Your task to perform on an android device: Open Chrome and go to settings Image 0: 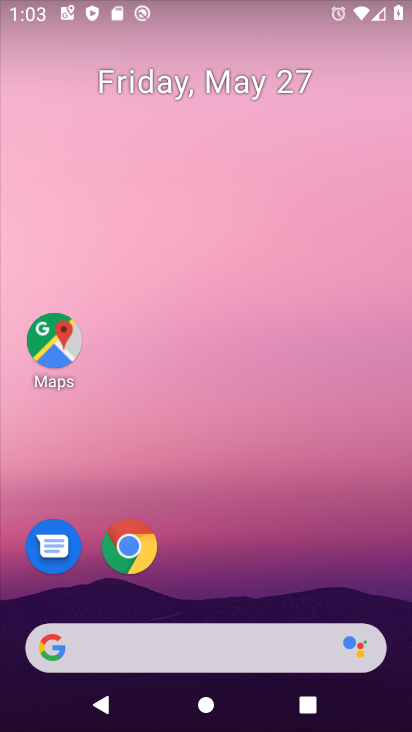
Step 0: drag from (272, 654) to (262, 29)
Your task to perform on an android device: Open Chrome and go to settings Image 1: 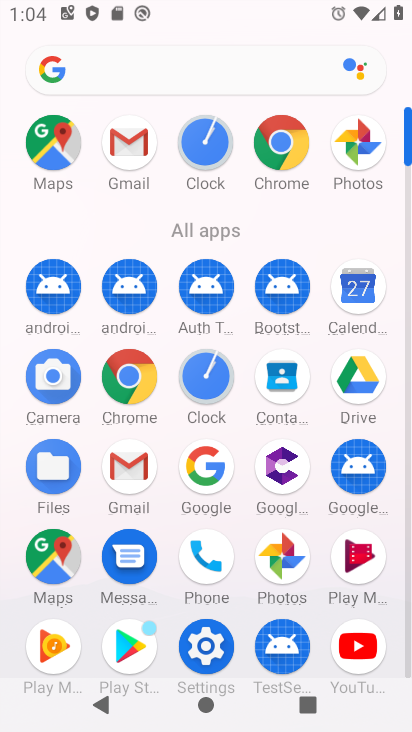
Step 1: click (285, 142)
Your task to perform on an android device: Open Chrome and go to settings Image 2: 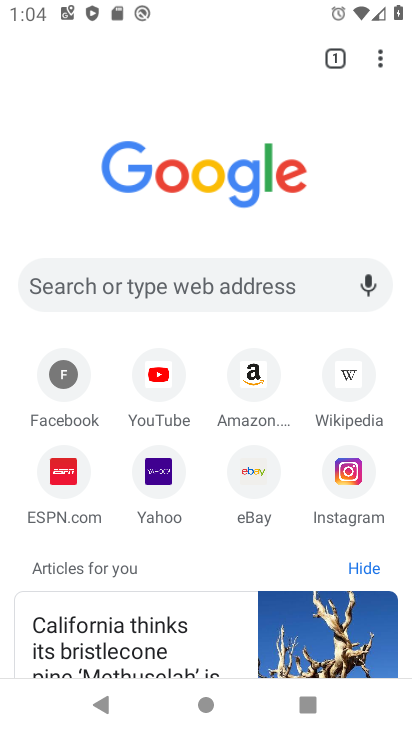
Step 2: click (382, 59)
Your task to perform on an android device: Open Chrome and go to settings Image 3: 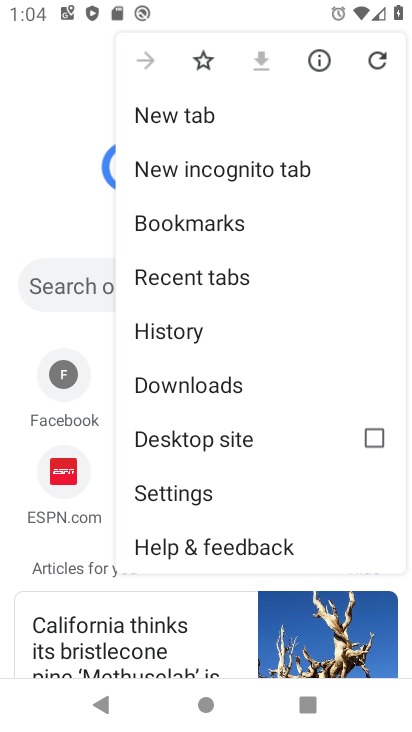
Step 3: click (174, 482)
Your task to perform on an android device: Open Chrome and go to settings Image 4: 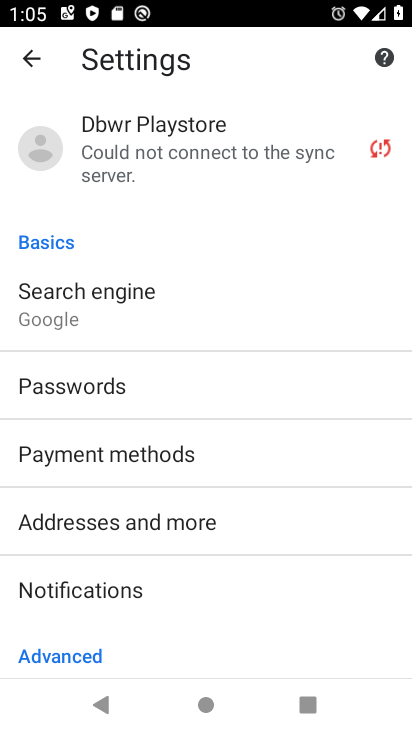
Step 4: task complete